Your task to perform on an android device: uninstall "Adobe Express: Graphic Design" Image 0: 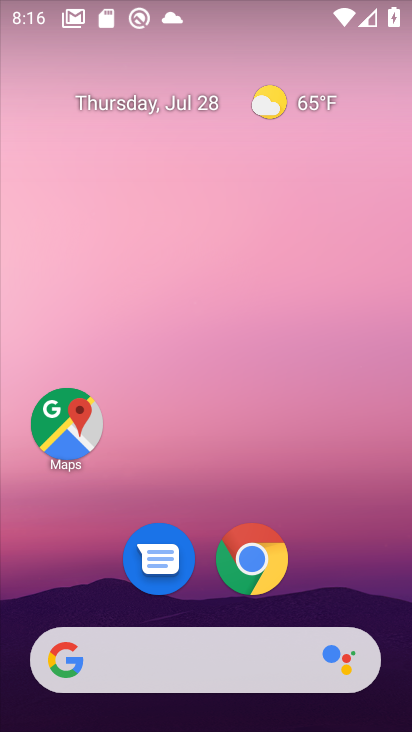
Step 0: drag from (185, 606) to (140, 1)
Your task to perform on an android device: uninstall "Adobe Express: Graphic Design" Image 1: 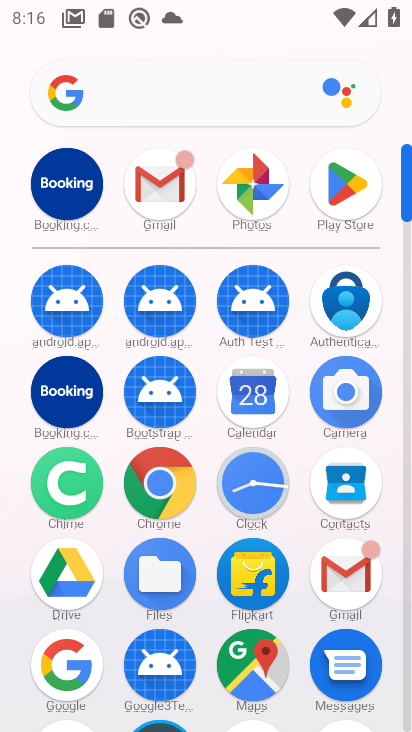
Step 1: click (348, 202)
Your task to perform on an android device: uninstall "Adobe Express: Graphic Design" Image 2: 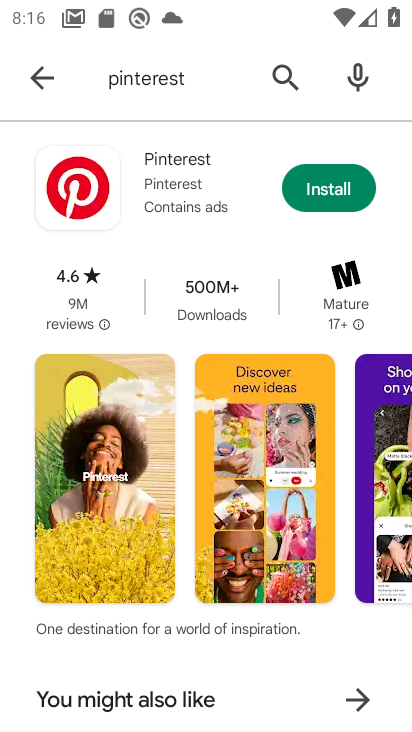
Step 2: click (176, 90)
Your task to perform on an android device: uninstall "Adobe Express: Graphic Design" Image 3: 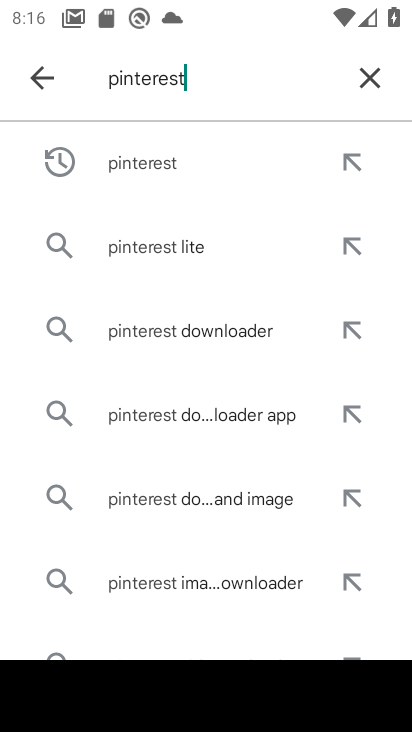
Step 3: click (364, 77)
Your task to perform on an android device: uninstall "Adobe Express: Graphic Design" Image 4: 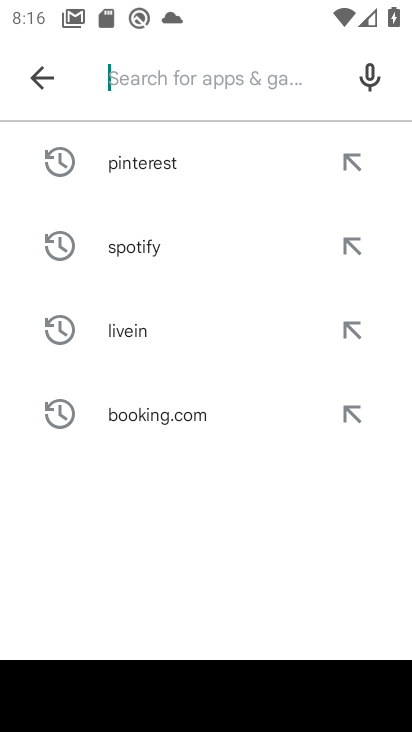
Step 4: type "Adobe Express"
Your task to perform on an android device: uninstall "Adobe Express: Graphic Design" Image 5: 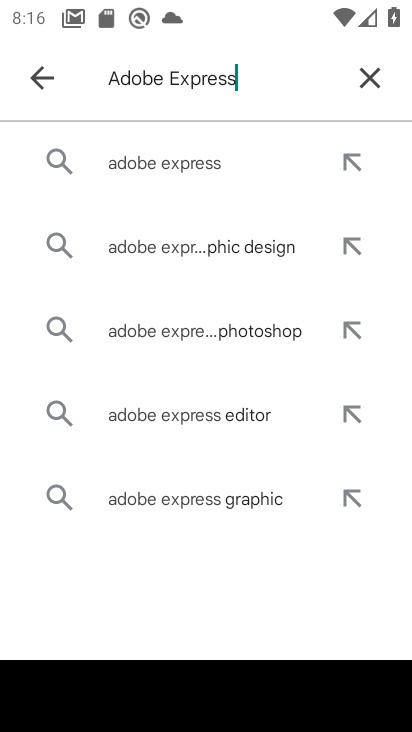
Step 5: click (197, 153)
Your task to perform on an android device: uninstall "Adobe Express: Graphic Design" Image 6: 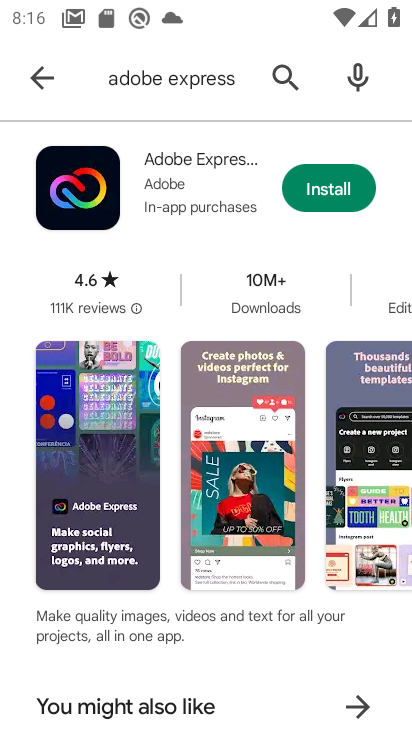
Step 6: task complete